Your task to perform on an android device: remove spam from my inbox in the gmail app Image 0: 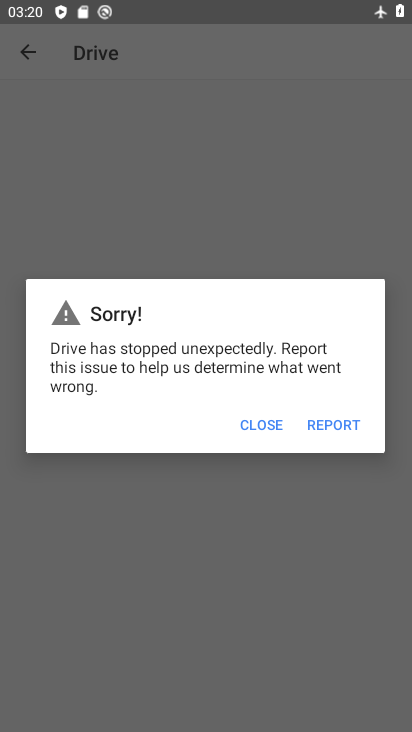
Step 0: click (265, 427)
Your task to perform on an android device: remove spam from my inbox in the gmail app Image 1: 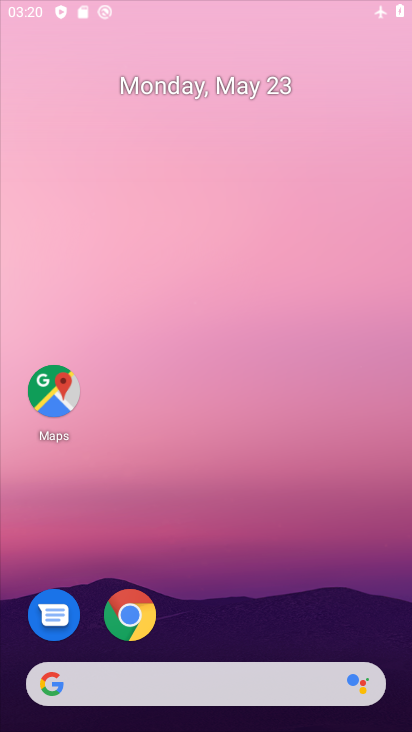
Step 1: task complete